Your task to perform on an android device: turn off location history Image 0: 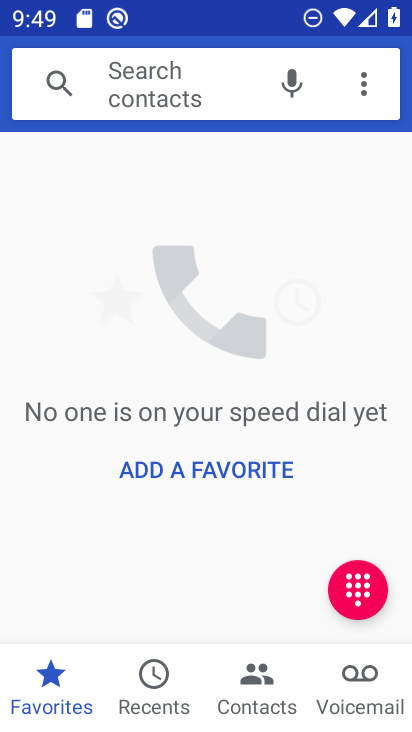
Step 0: press home button
Your task to perform on an android device: turn off location history Image 1: 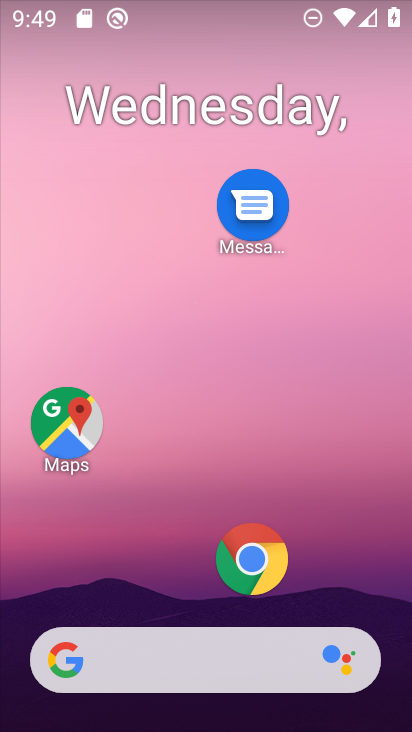
Step 1: drag from (191, 630) to (219, 133)
Your task to perform on an android device: turn off location history Image 2: 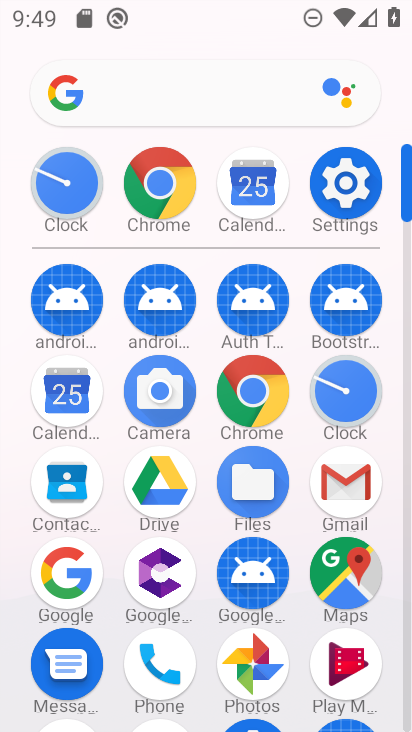
Step 2: click (358, 212)
Your task to perform on an android device: turn off location history Image 3: 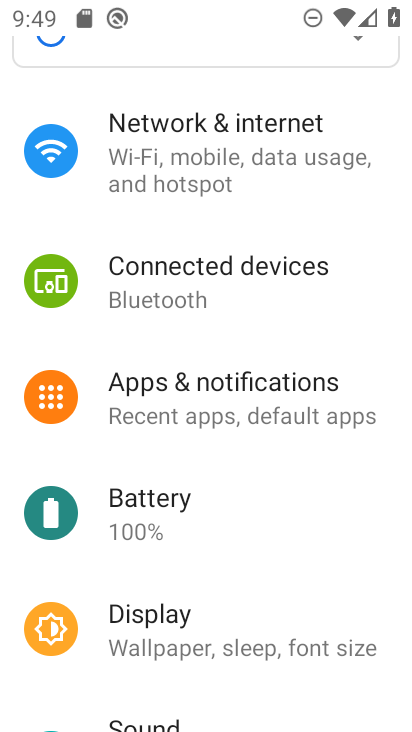
Step 3: drag from (197, 513) to (197, 244)
Your task to perform on an android device: turn off location history Image 4: 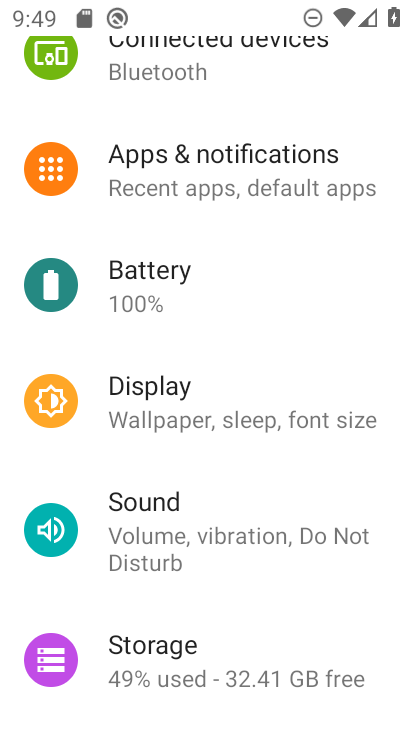
Step 4: drag from (185, 576) to (203, 282)
Your task to perform on an android device: turn off location history Image 5: 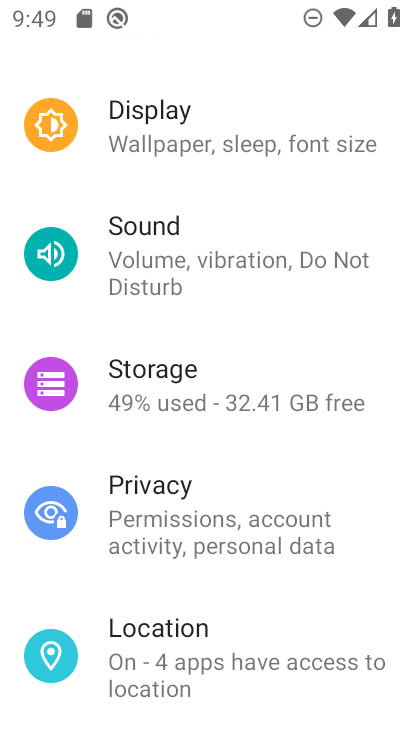
Step 5: click (193, 647)
Your task to perform on an android device: turn off location history Image 6: 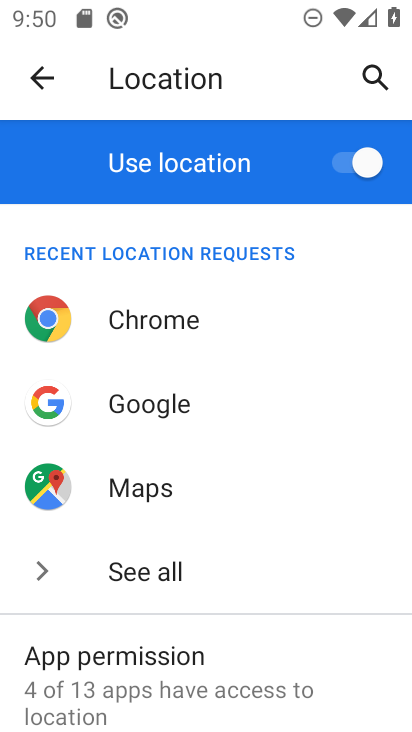
Step 6: drag from (200, 630) to (179, 162)
Your task to perform on an android device: turn off location history Image 7: 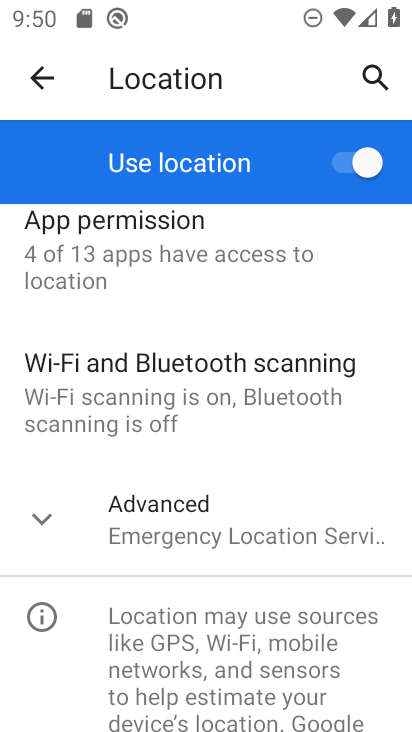
Step 7: click (238, 517)
Your task to perform on an android device: turn off location history Image 8: 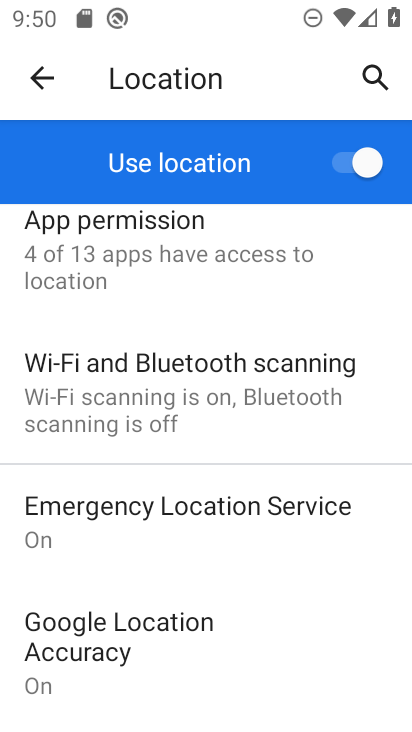
Step 8: drag from (239, 586) to (196, 191)
Your task to perform on an android device: turn off location history Image 9: 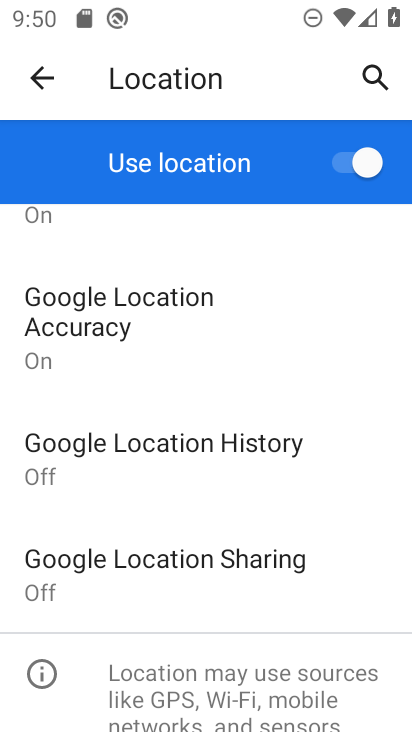
Step 9: click (156, 455)
Your task to perform on an android device: turn off location history Image 10: 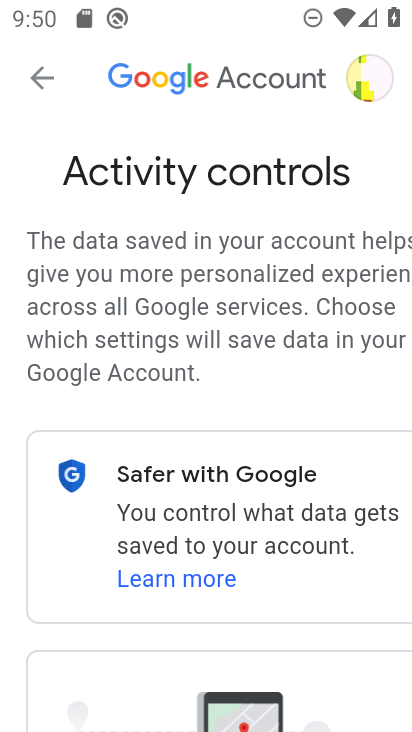
Step 10: drag from (281, 593) to (2, 41)
Your task to perform on an android device: turn off location history Image 11: 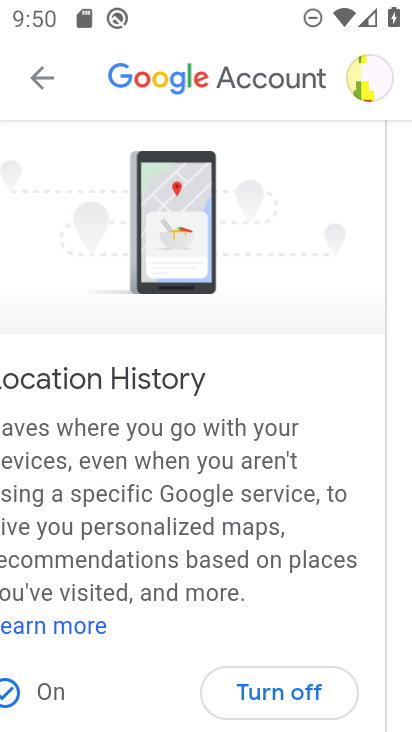
Step 11: drag from (285, 531) to (236, 283)
Your task to perform on an android device: turn off location history Image 12: 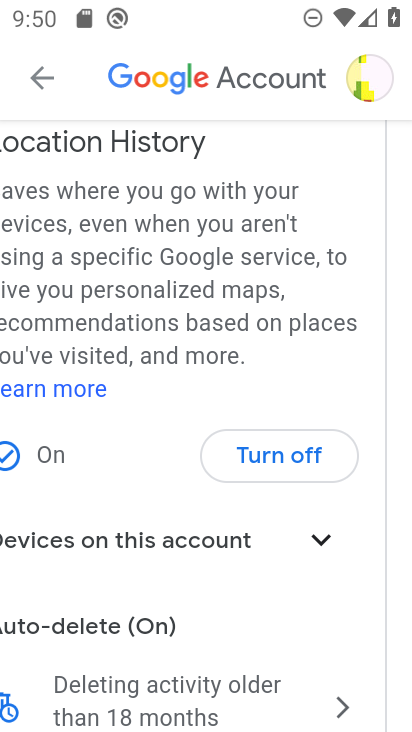
Step 12: click (315, 463)
Your task to perform on an android device: turn off location history Image 13: 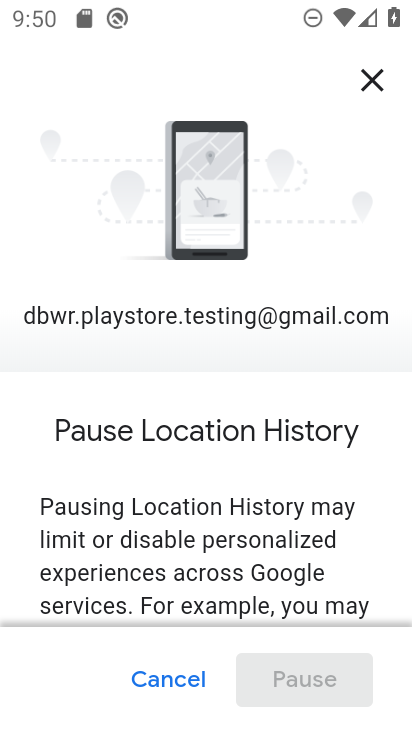
Step 13: drag from (257, 484) to (103, 23)
Your task to perform on an android device: turn off location history Image 14: 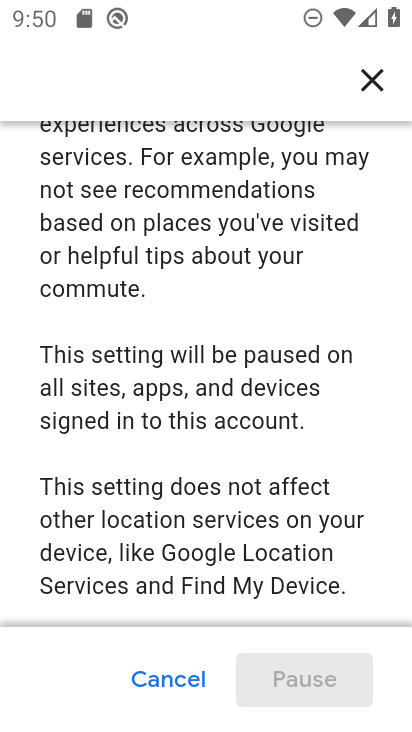
Step 14: drag from (262, 515) to (201, 35)
Your task to perform on an android device: turn off location history Image 15: 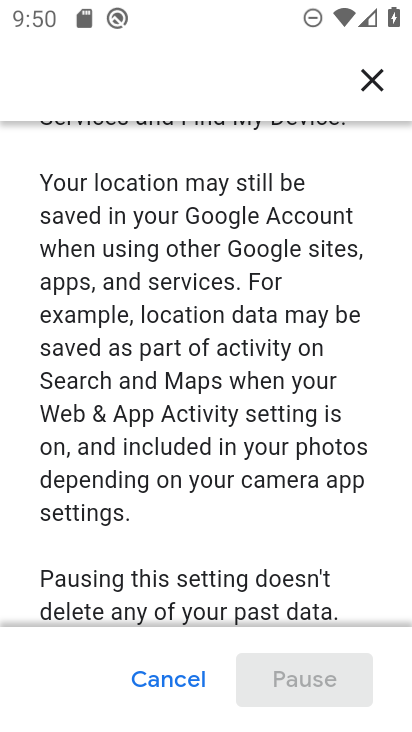
Step 15: drag from (204, 446) to (118, 150)
Your task to perform on an android device: turn off location history Image 16: 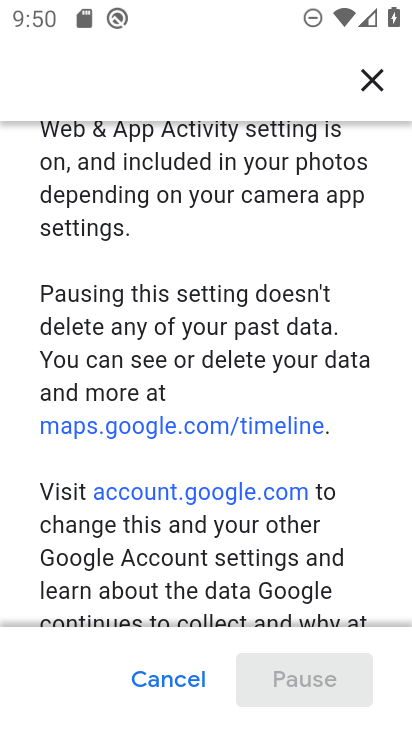
Step 16: drag from (297, 549) to (180, 127)
Your task to perform on an android device: turn off location history Image 17: 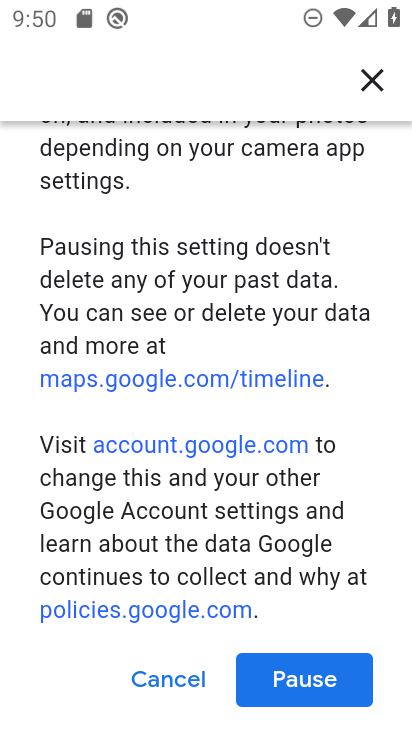
Step 17: click (323, 702)
Your task to perform on an android device: turn off location history Image 18: 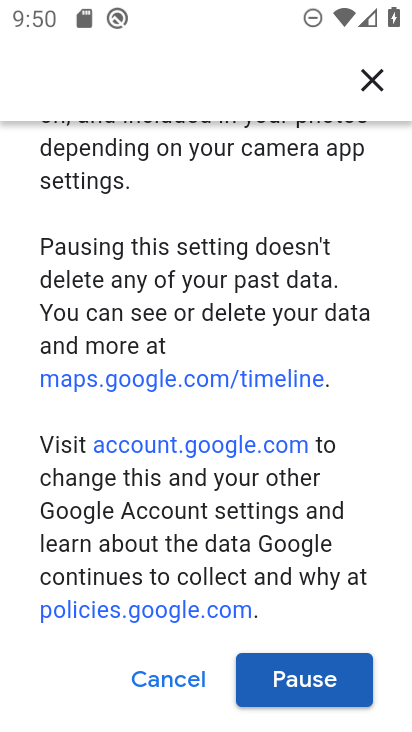
Step 18: click (321, 688)
Your task to perform on an android device: turn off location history Image 19: 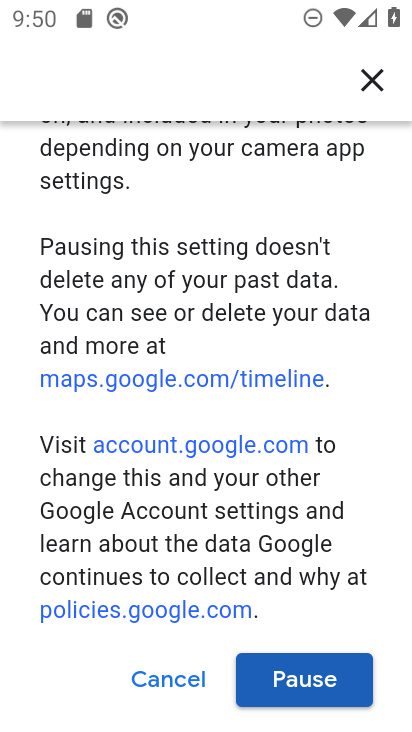
Step 19: click (301, 687)
Your task to perform on an android device: turn off location history Image 20: 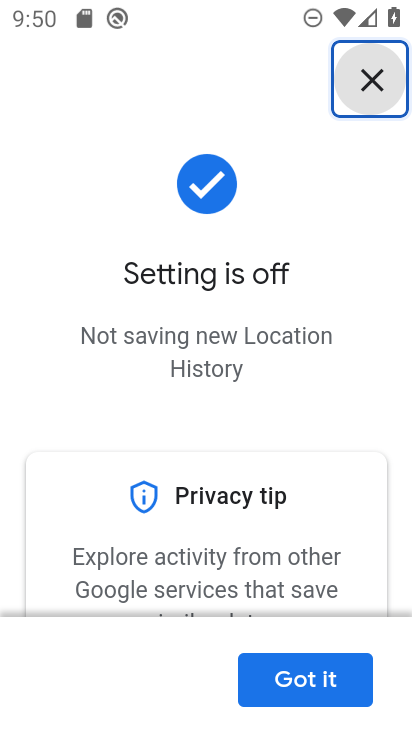
Step 20: click (305, 694)
Your task to perform on an android device: turn off location history Image 21: 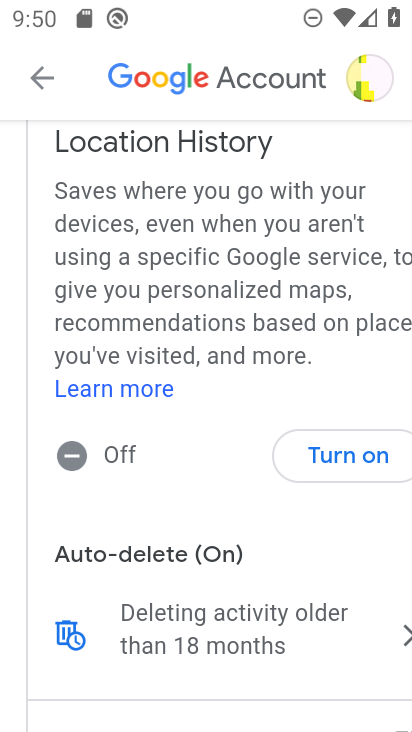
Step 21: task complete